Your task to perform on an android device: turn pop-ups on in chrome Image 0: 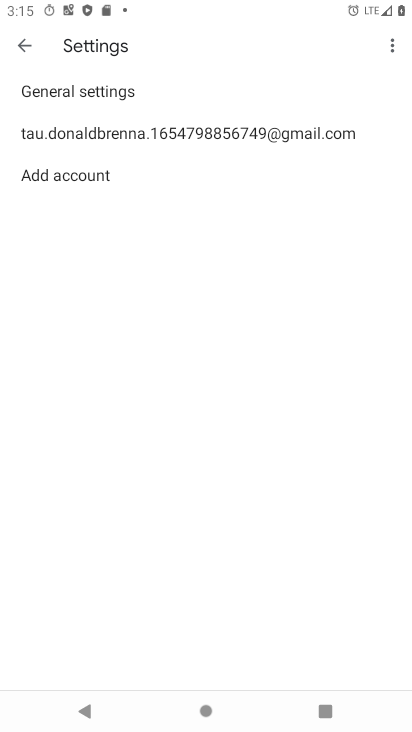
Step 0: press home button
Your task to perform on an android device: turn pop-ups on in chrome Image 1: 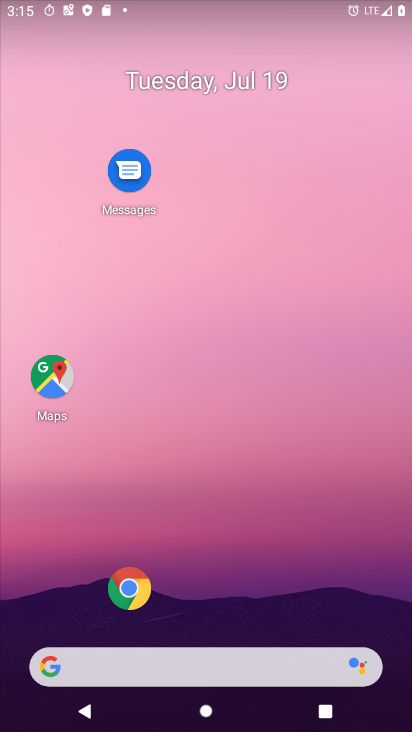
Step 1: click (146, 590)
Your task to perform on an android device: turn pop-ups on in chrome Image 2: 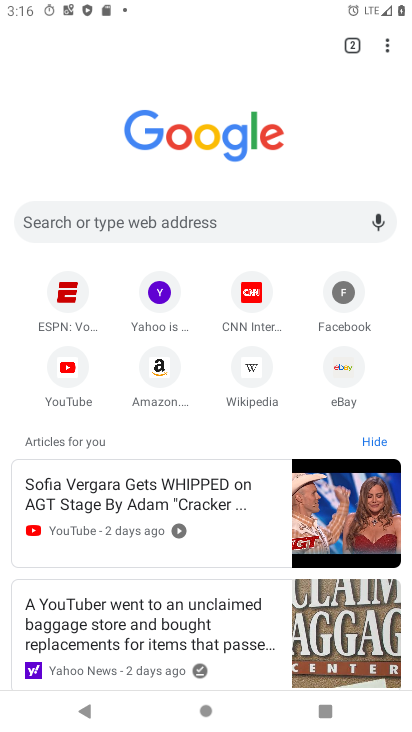
Step 2: click (387, 46)
Your task to perform on an android device: turn pop-ups on in chrome Image 3: 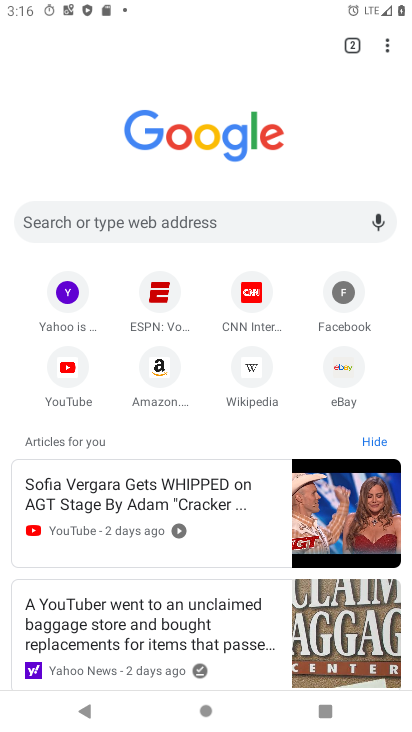
Step 3: click (383, 44)
Your task to perform on an android device: turn pop-ups on in chrome Image 4: 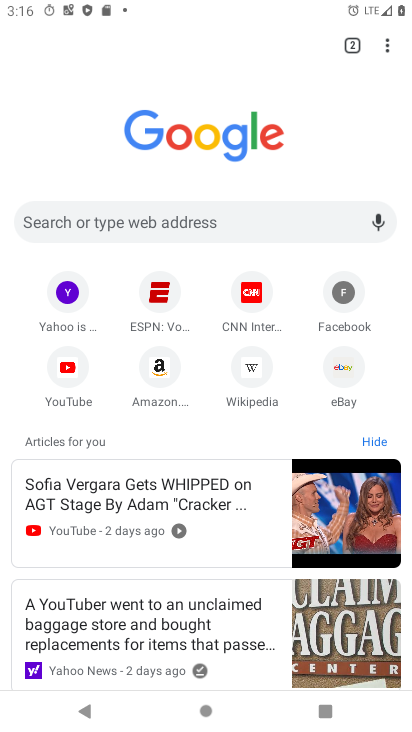
Step 4: click (387, 43)
Your task to perform on an android device: turn pop-ups on in chrome Image 5: 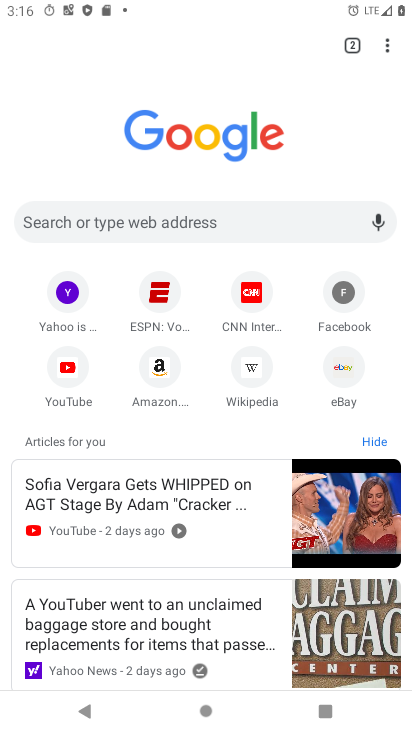
Step 5: click (387, 42)
Your task to perform on an android device: turn pop-ups on in chrome Image 6: 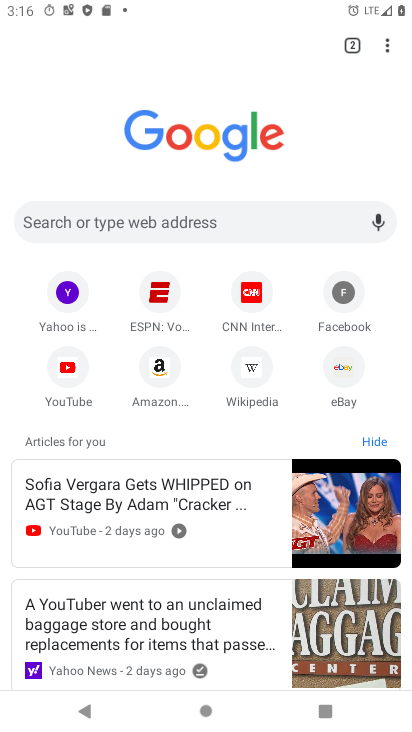
Step 6: task complete